Your task to perform on an android device: Search for vegetarian restaurants on Maps Image 0: 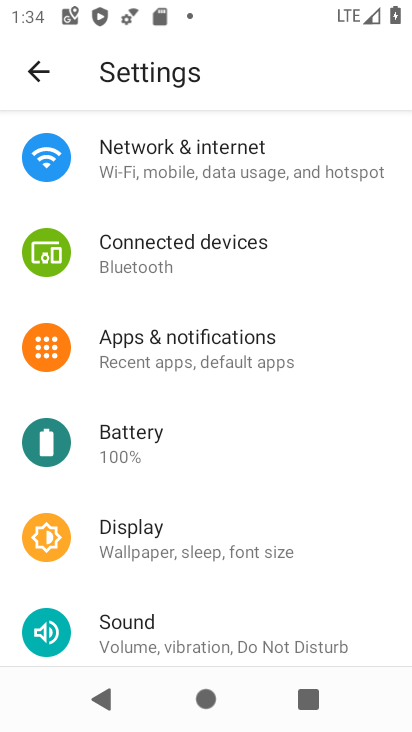
Step 0: press home button
Your task to perform on an android device: Search for vegetarian restaurants on Maps Image 1: 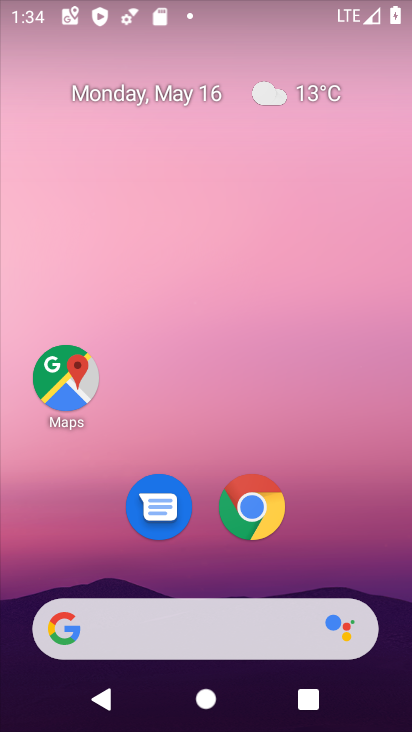
Step 1: click (67, 380)
Your task to perform on an android device: Search for vegetarian restaurants on Maps Image 2: 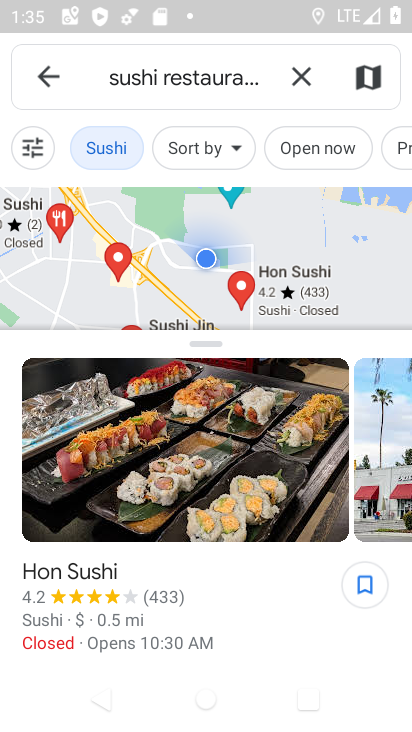
Step 2: click (301, 74)
Your task to perform on an android device: Search for vegetarian restaurants on Maps Image 3: 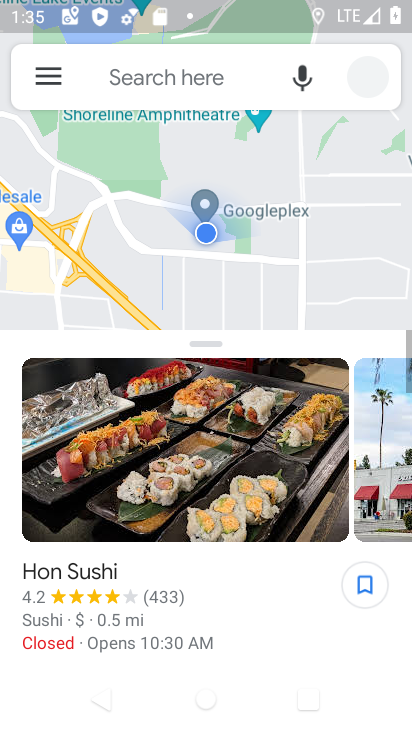
Step 3: click (208, 77)
Your task to perform on an android device: Search for vegetarian restaurants on Maps Image 4: 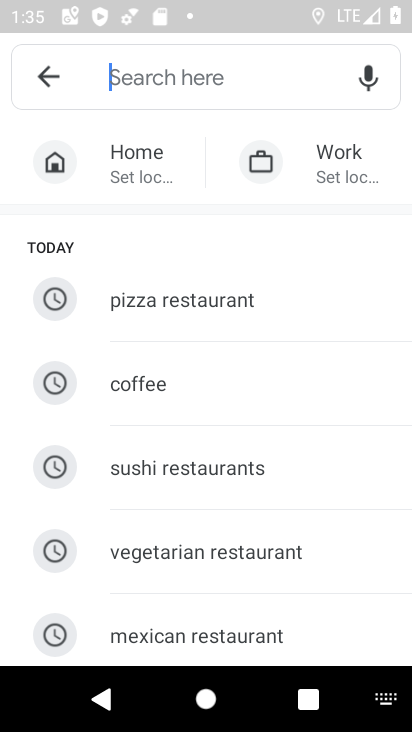
Step 4: click (197, 557)
Your task to perform on an android device: Search for vegetarian restaurants on Maps Image 5: 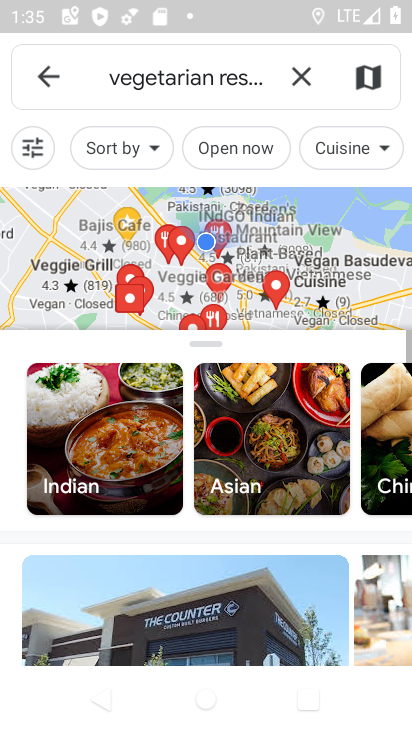
Step 5: task complete